Your task to perform on an android device: search for outdoor chairs on article.com Image 0: 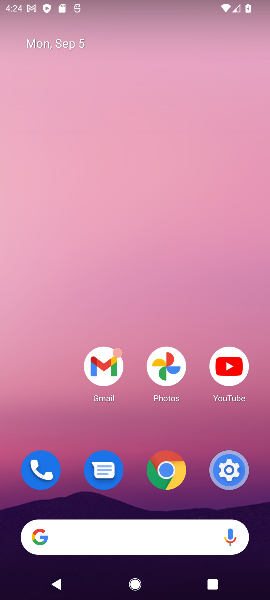
Step 0: type "article.com"
Your task to perform on an android device: search for outdoor chairs on article.com Image 1: 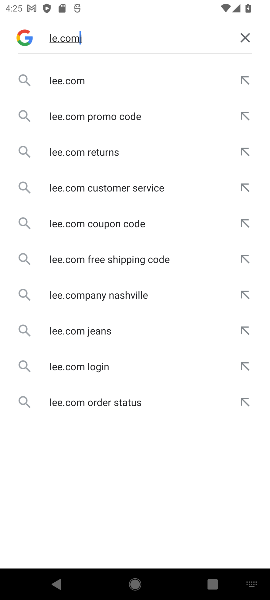
Step 1: click (245, 36)
Your task to perform on an android device: search for outdoor chairs on article.com Image 2: 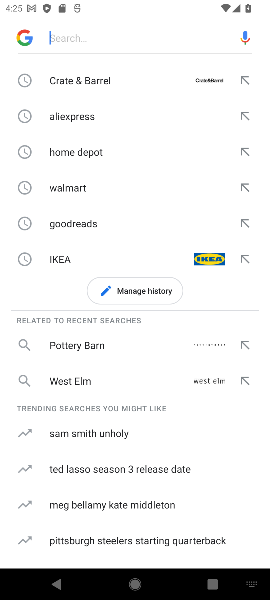
Step 2: type "article.com"
Your task to perform on an android device: search for outdoor chairs on article.com Image 3: 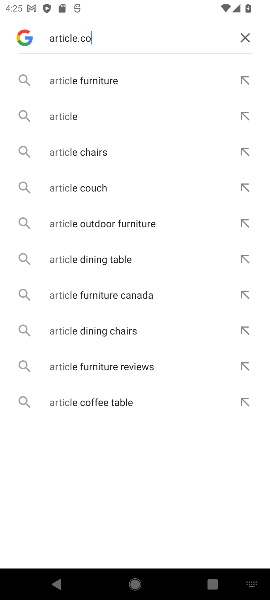
Step 3: type ""
Your task to perform on an android device: search for outdoor chairs on article.com Image 4: 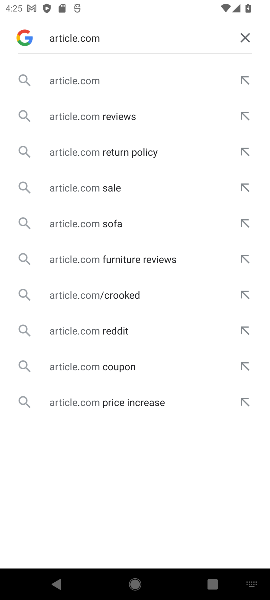
Step 4: press enter
Your task to perform on an android device: search for outdoor chairs on article.com Image 5: 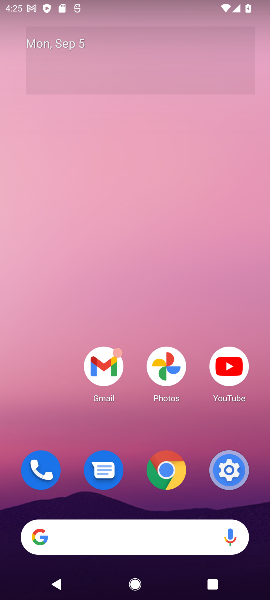
Step 5: click (139, 533)
Your task to perform on an android device: search for outdoor chairs on article.com Image 6: 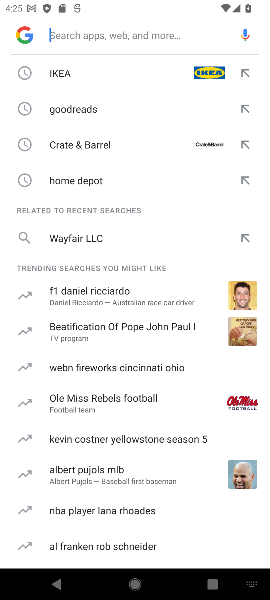
Step 6: click (114, 31)
Your task to perform on an android device: search for outdoor chairs on article.com Image 7: 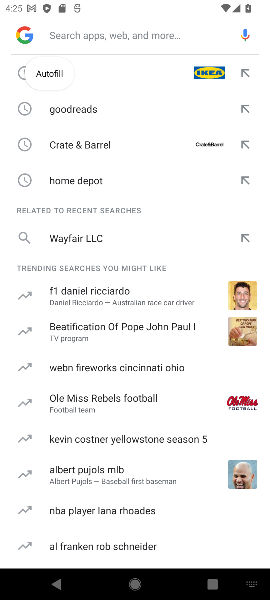
Step 7: type "article.com"
Your task to perform on an android device: search for outdoor chairs on article.com Image 8: 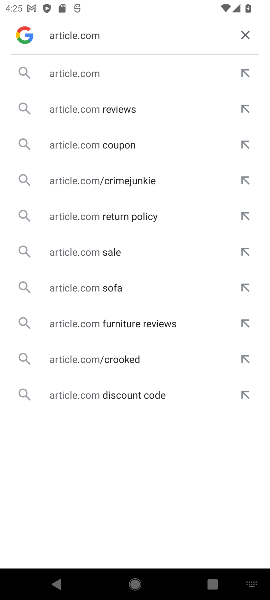
Step 8: press enter
Your task to perform on an android device: search for outdoor chairs on article.com Image 9: 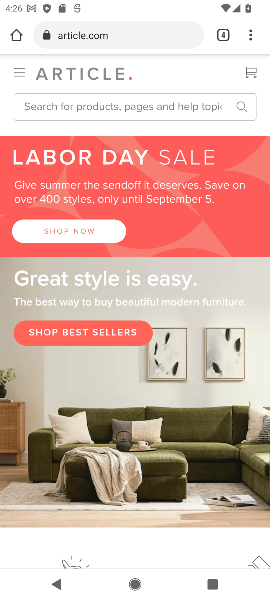
Step 9: click (95, 104)
Your task to perform on an android device: search for outdoor chairs on article.com Image 10: 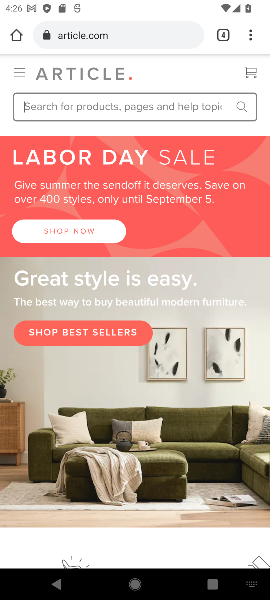
Step 10: click (95, 104)
Your task to perform on an android device: search for outdoor chairs on article.com Image 11: 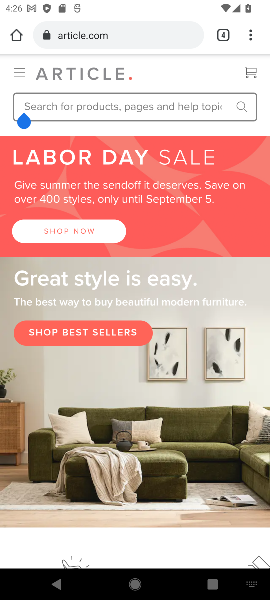
Step 11: type "outdoor chairs"
Your task to perform on an android device: search for outdoor chairs on article.com Image 12: 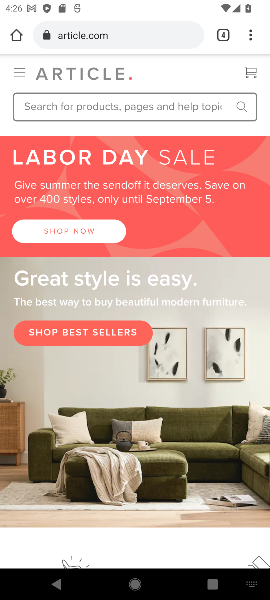
Step 12: type ""
Your task to perform on an android device: search for outdoor chairs on article.com Image 13: 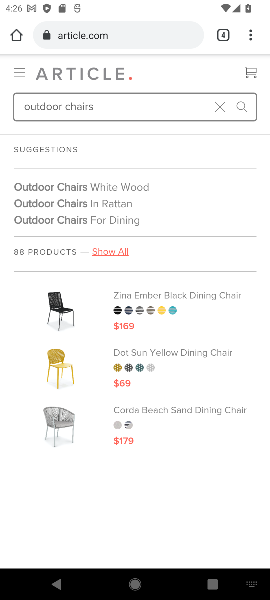
Step 13: press enter
Your task to perform on an android device: search for outdoor chairs on article.com Image 14: 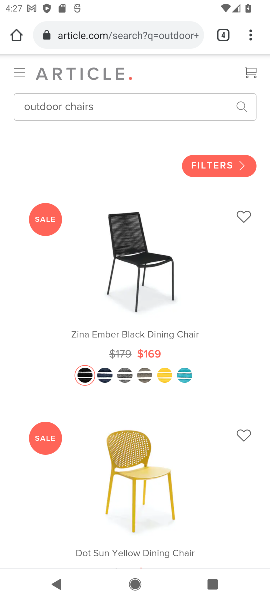
Step 14: task complete